Your task to perform on an android device: Search for pizza restaurants on Maps Image 0: 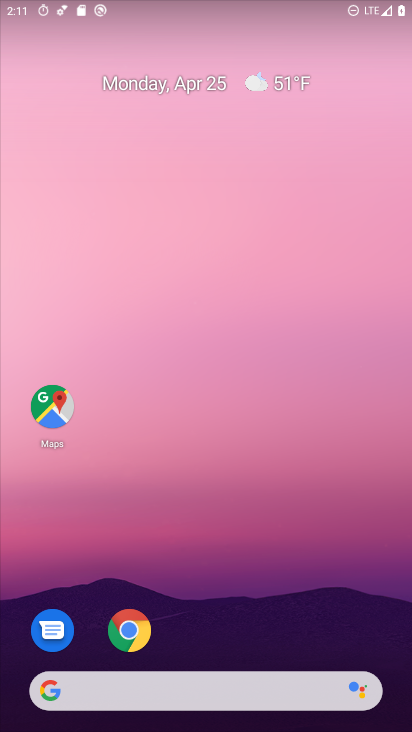
Step 0: click (364, 185)
Your task to perform on an android device: Search for pizza restaurants on Maps Image 1: 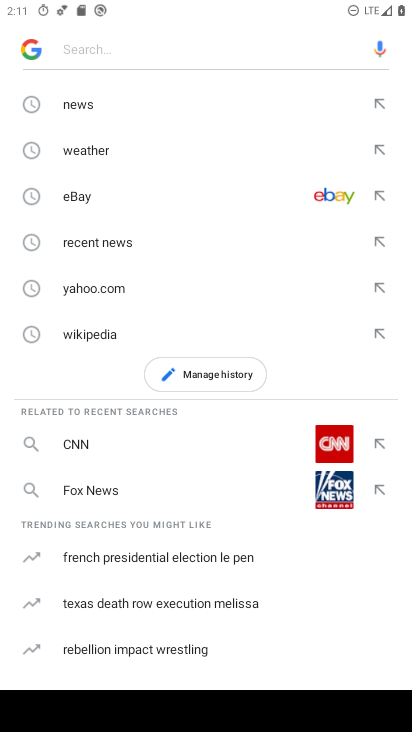
Step 1: press home button
Your task to perform on an android device: Search for pizza restaurants on Maps Image 2: 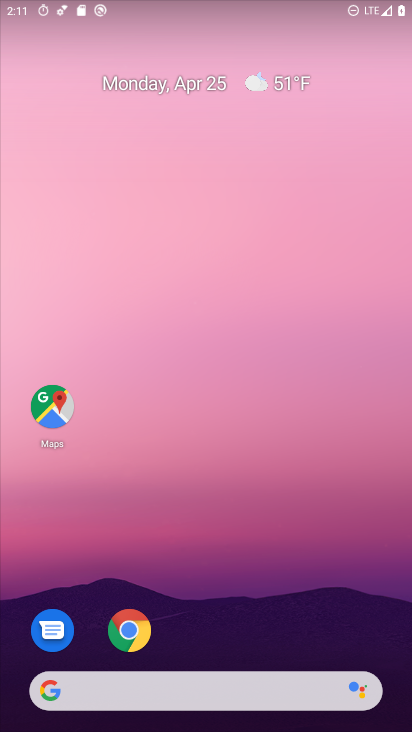
Step 2: drag from (176, 644) to (271, 229)
Your task to perform on an android device: Search for pizza restaurants on Maps Image 3: 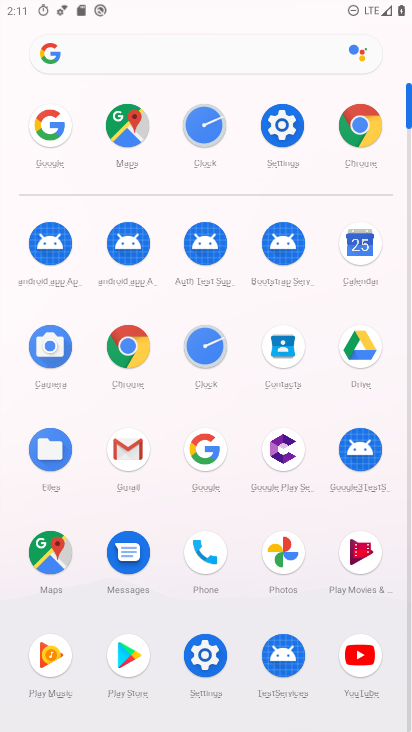
Step 3: click (49, 549)
Your task to perform on an android device: Search for pizza restaurants on Maps Image 4: 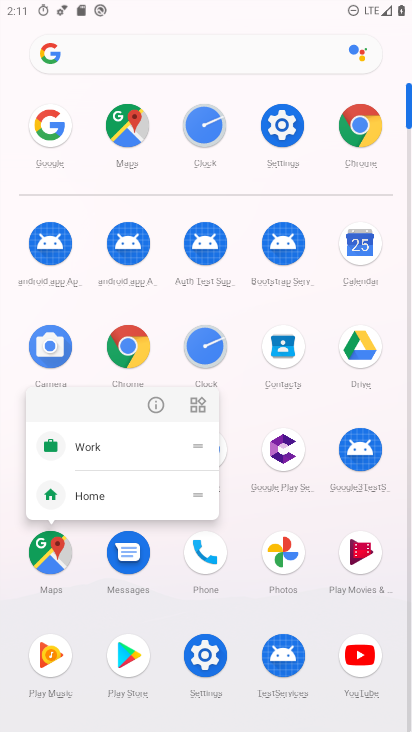
Step 4: click (158, 412)
Your task to perform on an android device: Search for pizza restaurants on Maps Image 5: 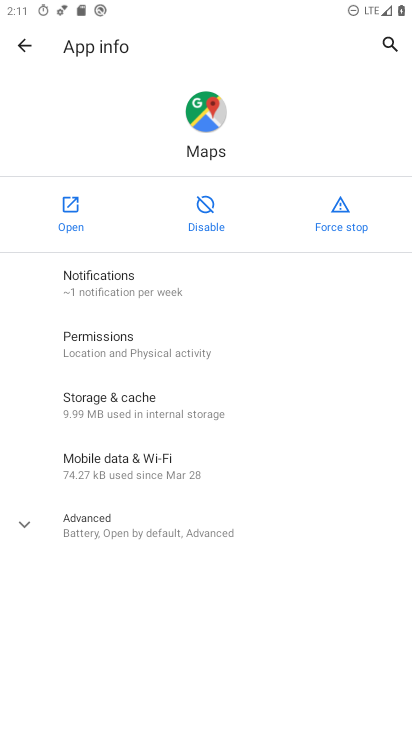
Step 5: click (64, 207)
Your task to perform on an android device: Search for pizza restaurants on Maps Image 6: 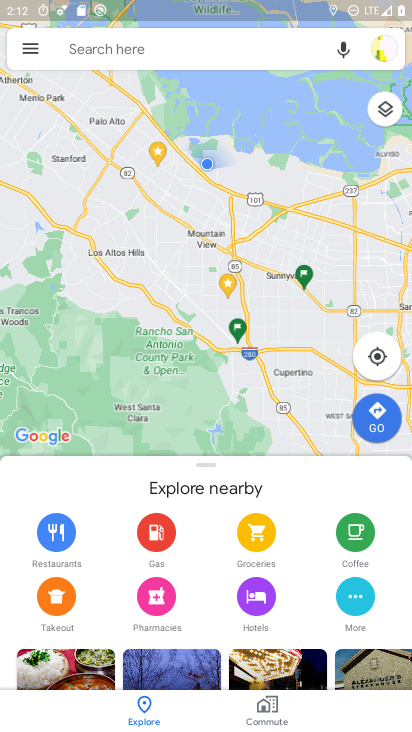
Step 6: click (188, 65)
Your task to perform on an android device: Search for pizza restaurants on Maps Image 7: 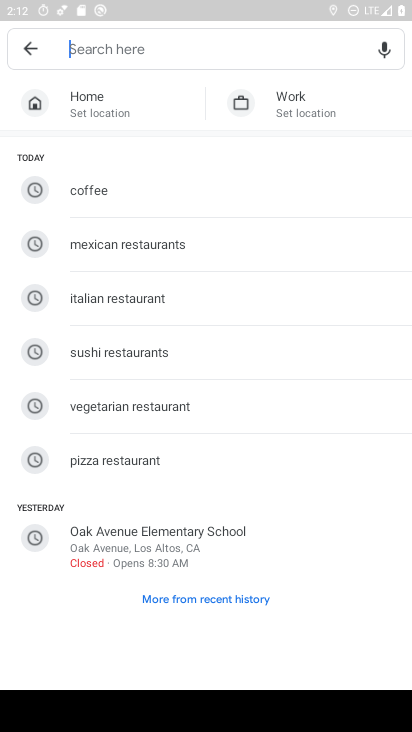
Step 7: click (138, 445)
Your task to perform on an android device: Search for pizza restaurants on Maps Image 8: 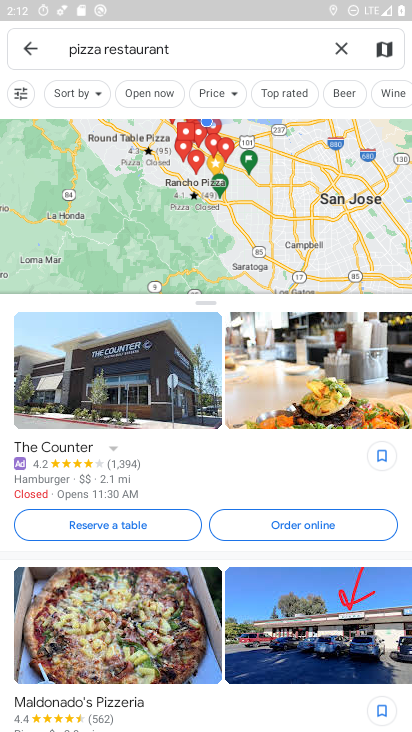
Step 8: task complete